Your task to perform on an android device: What's on my calendar tomorrow? Image 0: 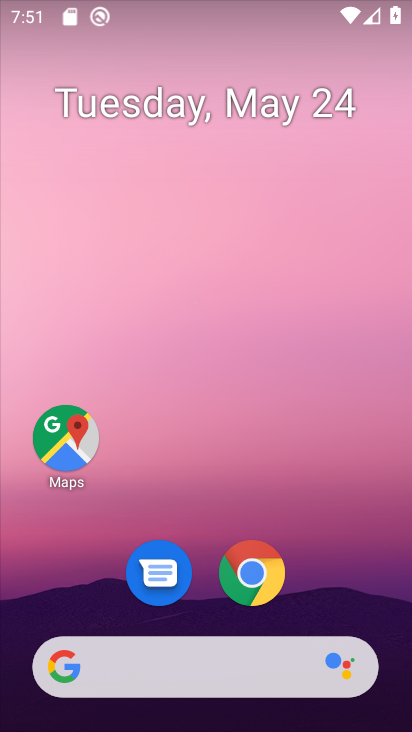
Step 0: drag from (347, 518) to (306, 70)
Your task to perform on an android device: What's on my calendar tomorrow? Image 1: 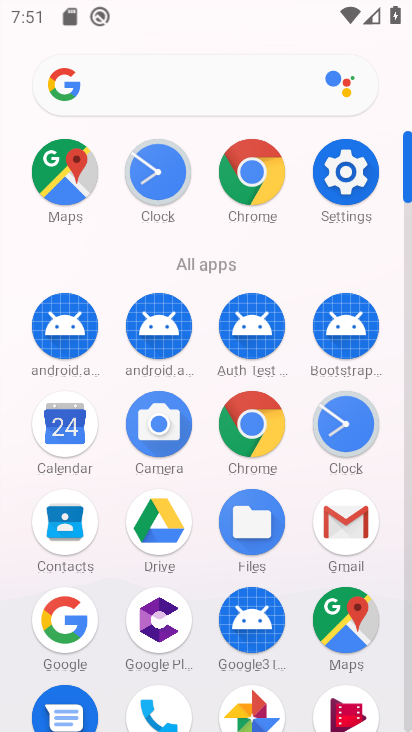
Step 1: click (62, 426)
Your task to perform on an android device: What's on my calendar tomorrow? Image 2: 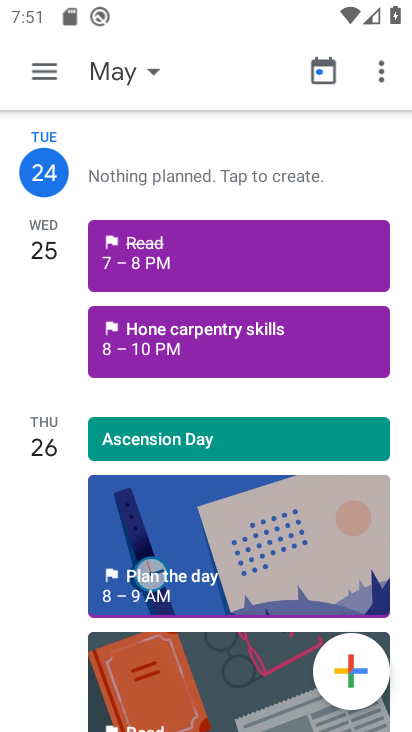
Step 2: click (115, 96)
Your task to perform on an android device: What's on my calendar tomorrow? Image 3: 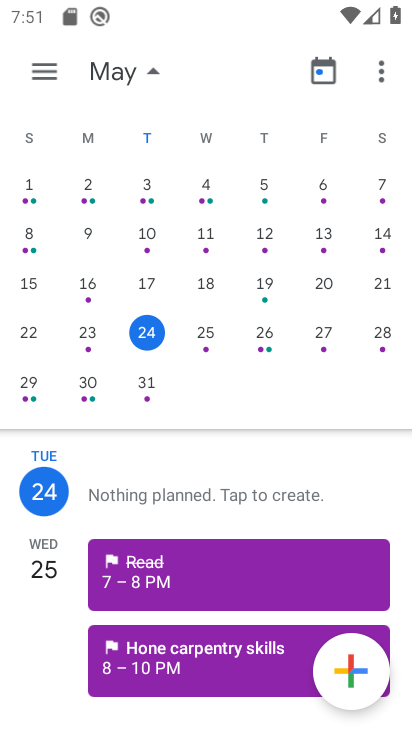
Step 3: click (213, 348)
Your task to perform on an android device: What's on my calendar tomorrow? Image 4: 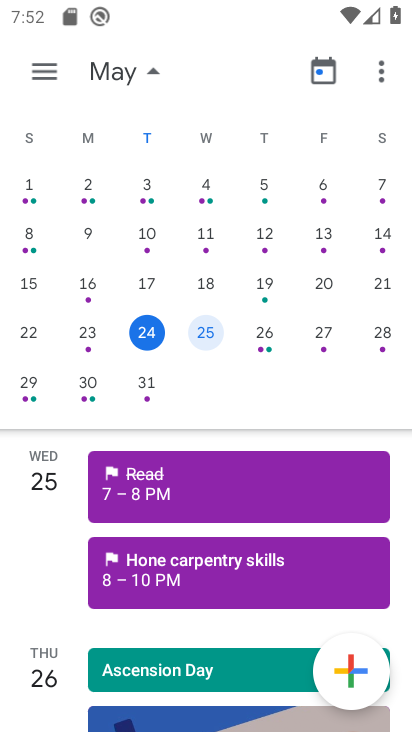
Step 4: task complete